Your task to perform on an android device: search for starred emails in the gmail app Image 0: 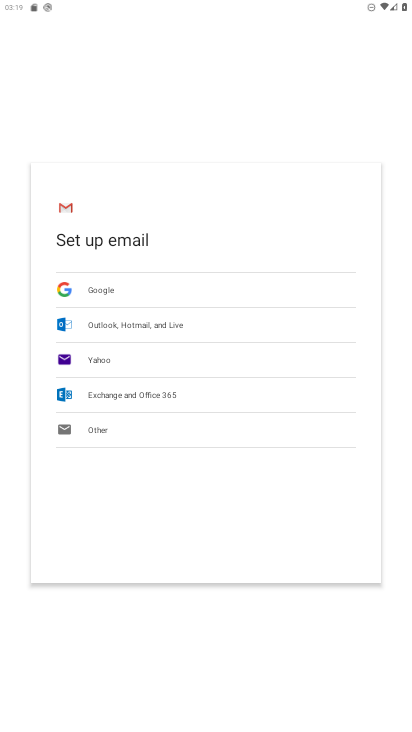
Step 0: press home button
Your task to perform on an android device: search for starred emails in the gmail app Image 1: 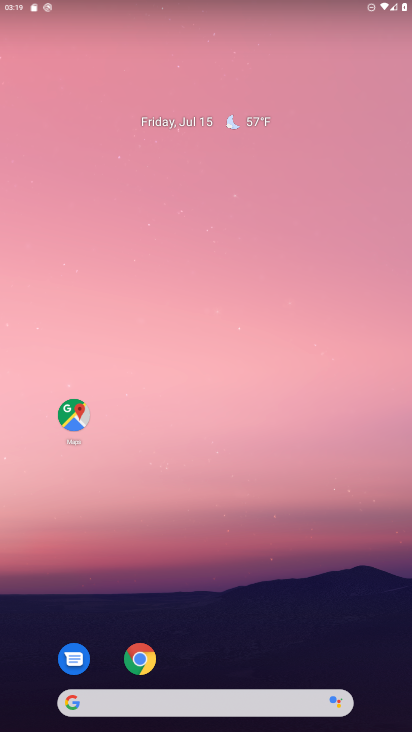
Step 1: drag from (199, 670) to (196, 32)
Your task to perform on an android device: search for starred emails in the gmail app Image 2: 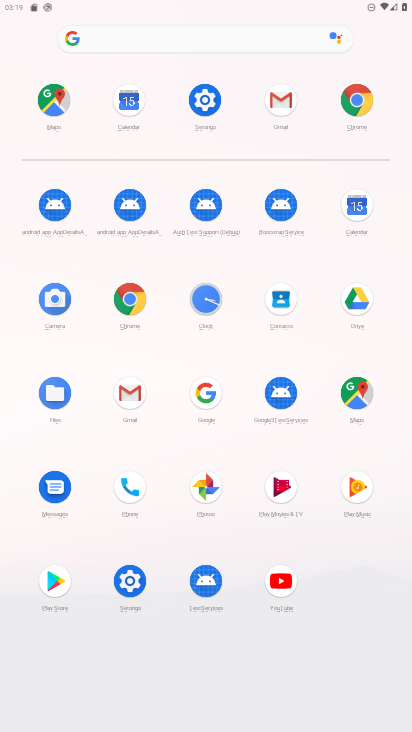
Step 2: click (130, 399)
Your task to perform on an android device: search for starred emails in the gmail app Image 3: 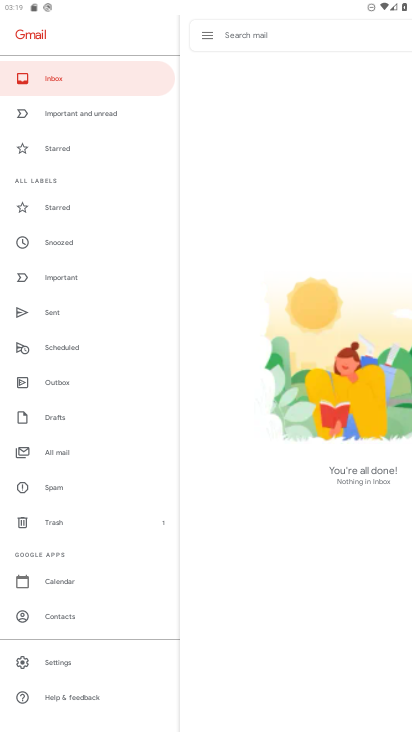
Step 3: click (69, 210)
Your task to perform on an android device: search for starred emails in the gmail app Image 4: 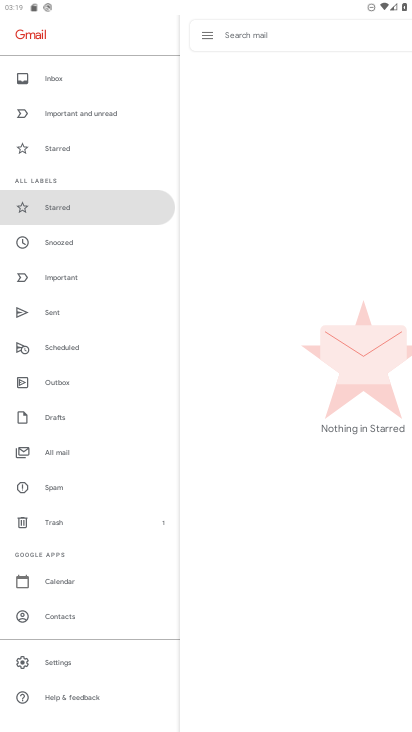
Step 4: task complete